Your task to perform on an android device: Open Maps and search for coffee Image 0: 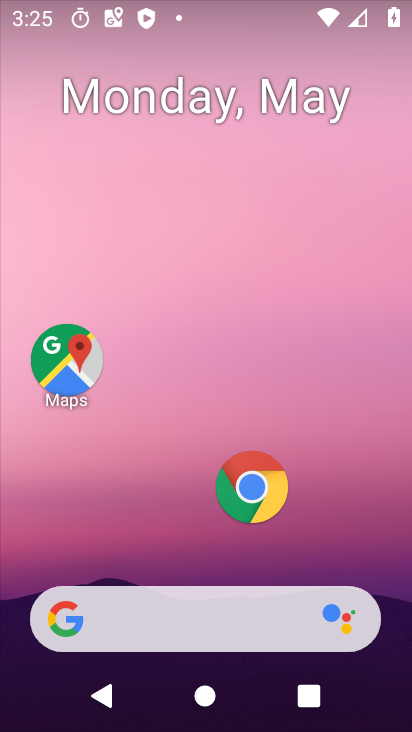
Step 0: click (54, 368)
Your task to perform on an android device: Open Maps and search for coffee Image 1: 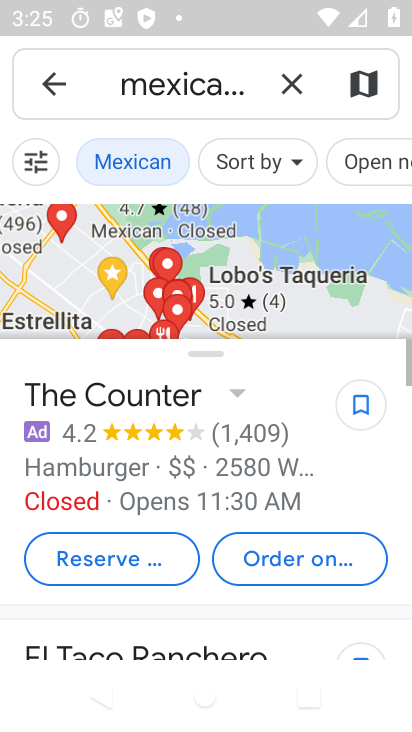
Step 1: click (286, 82)
Your task to perform on an android device: Open Maps and search for coffee Image 2: 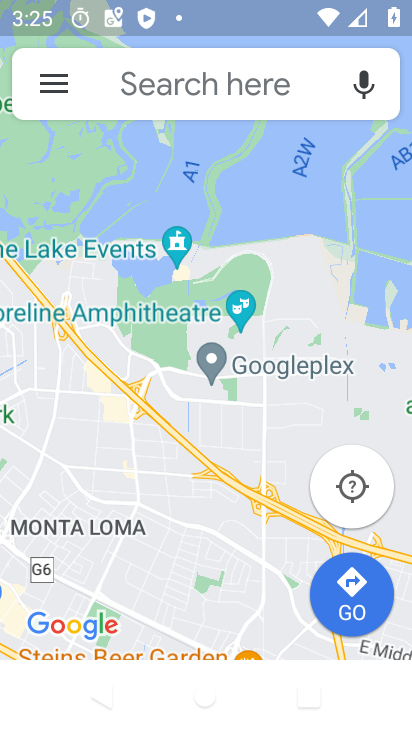
Step 2: click (178, 92)
Your task to perform on an android device: Open Maps and search for coffee Image 3: 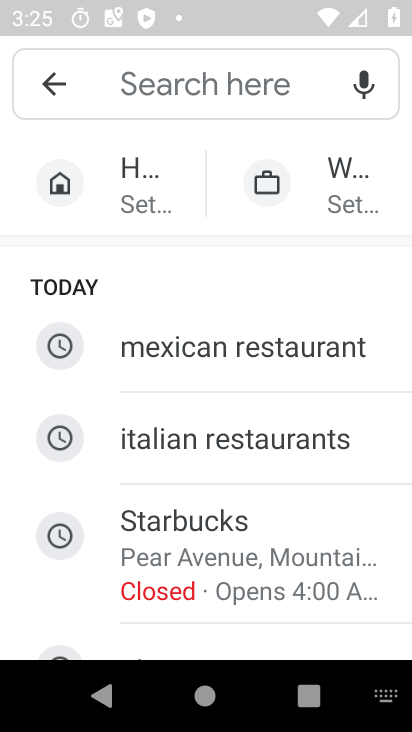
Step 3: type "coffee"
Your task to perform on an android device: Open Maps and search for coffee Image 4: 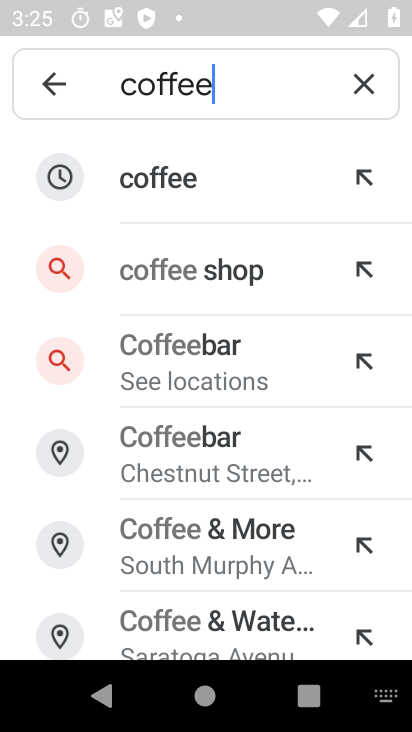
Step 4: click (167, 170)
Your task to perform on an android device: Open Maps and search for coffee Image 5: 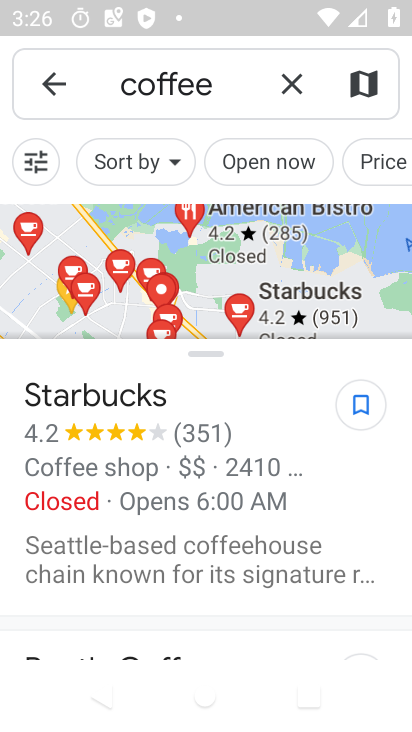
Step 5: task complete